Your task to perform on an android device: What's on my calendar tomorrow? Image 0: 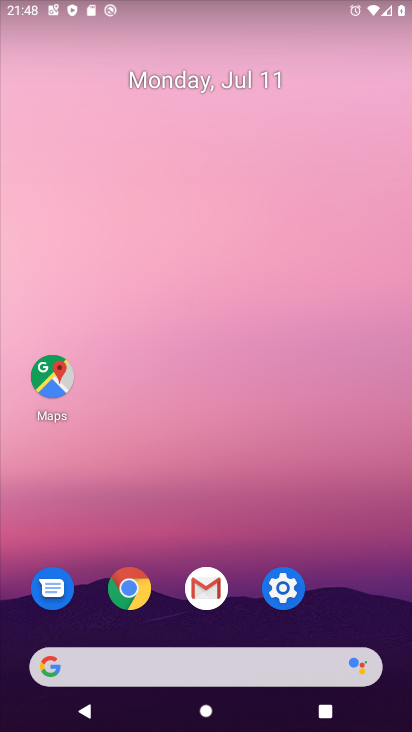
Step 0: drag from (225, 689) to (228, 166)
Your task to perform on an android device: What's on my calendar tomorrow? Image 1: 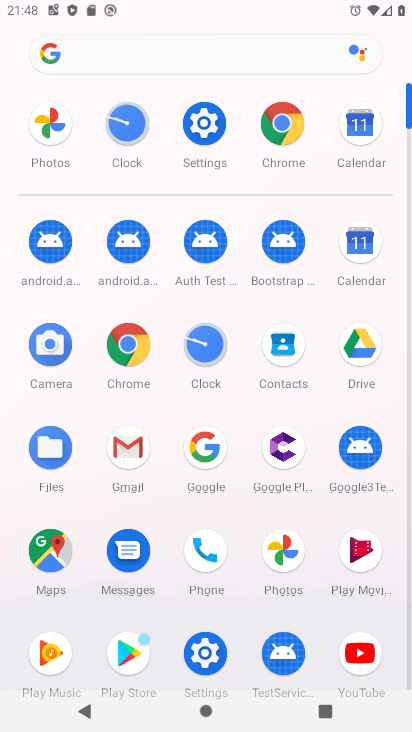
Step 1: click (361, 249)
Your task to perform on an android device: What's on my calendar tomorrow? Image 2: 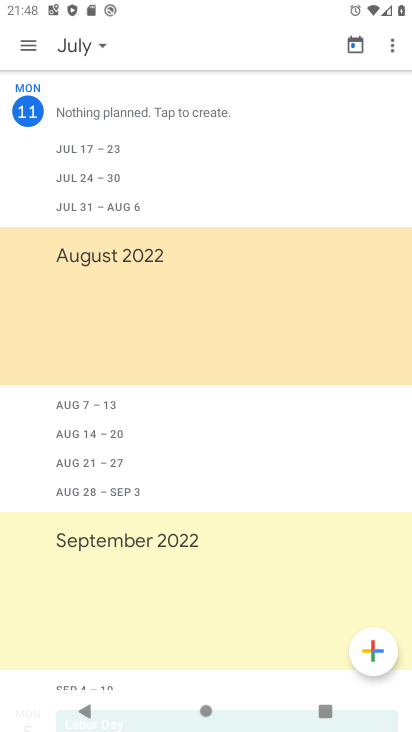
Step 2: click (31, 51)
Your task to perform on an android device: What's on my calendar tomorrow? Image 3: 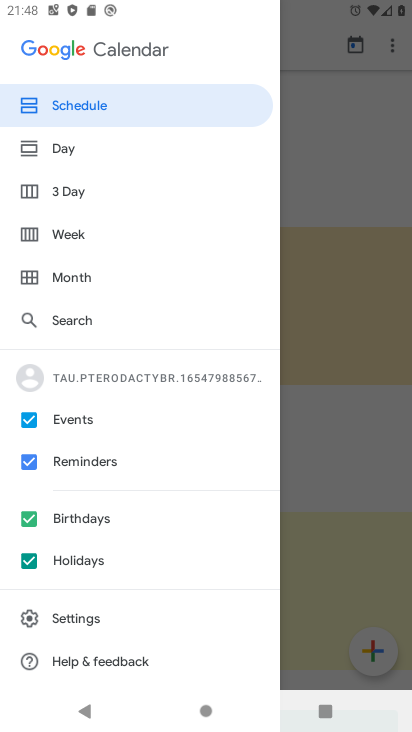
Step 3: click (68, 279)
Your task to perform on an android device: What's on my calendar tomorrow? Image 4: 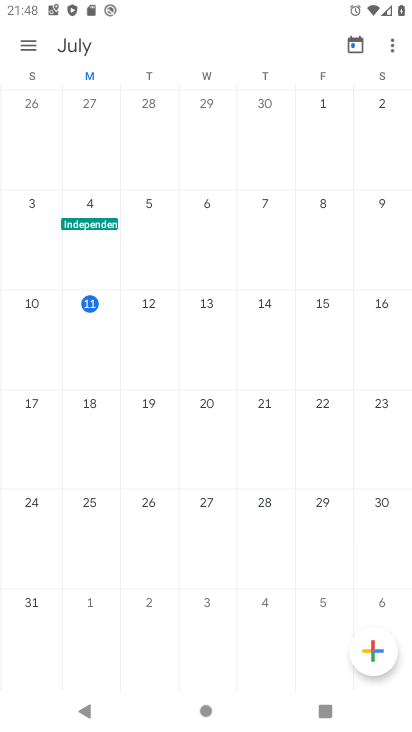
Step 4: click (148, 314)
Your task to perform on an android device: What's on my calendar tomorrow? Image 5: 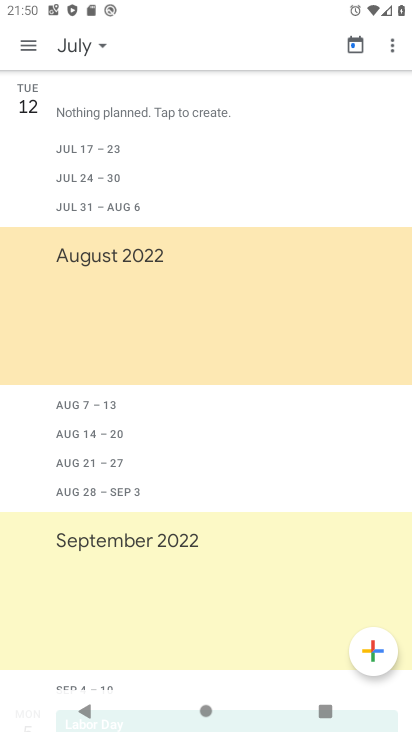
Step 5: task complete